Your task to perform on an android device: Open display settings Image 0: 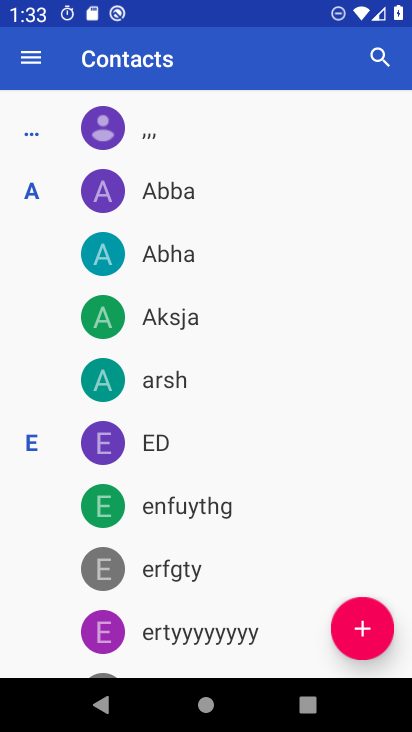
Step 0: press home button
Your task to perform on an android device: Open display settings Image 1: 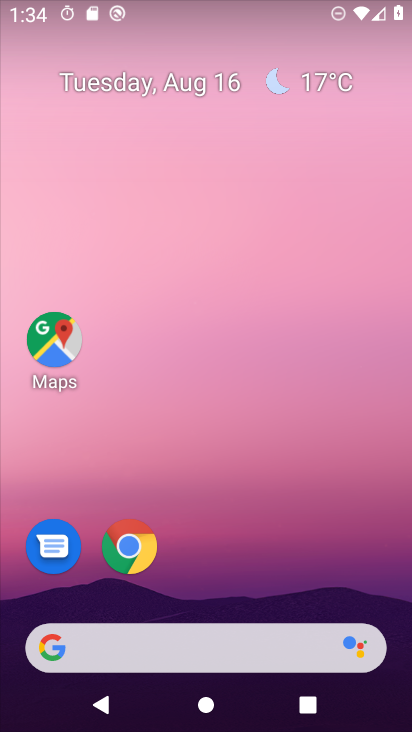
Step 1: drag from (194, 484) to (193, 34)
Your task to perform on an android device: Open display settings Image 2: 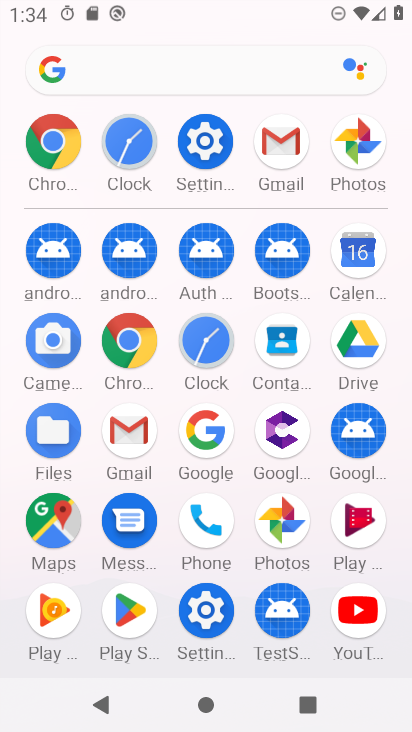
Step 2: click (213, 135)
Your task to perform on an android device: Open display settings Image 3: 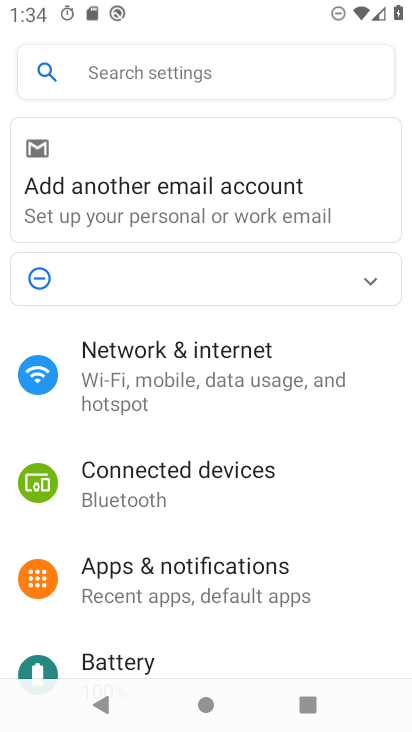
Step 3: drag from (156, 638) to (152, 300)
Your task to perform on an android device: Open display settings Image 4: 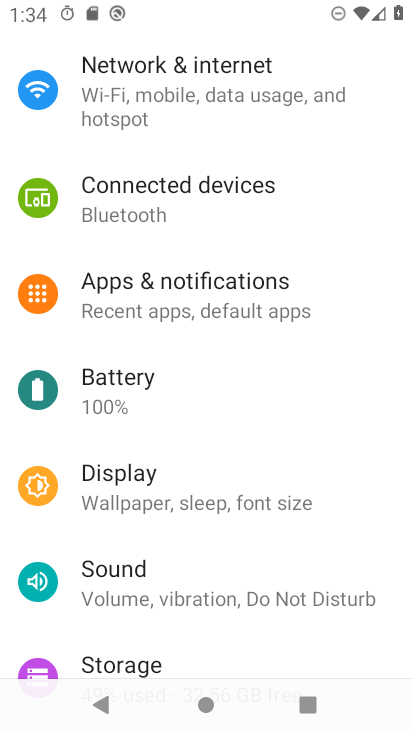
Step 4: drag from (140, 595) to (139, 425)
Your task to perform on an android device: Open display settings Image 5: 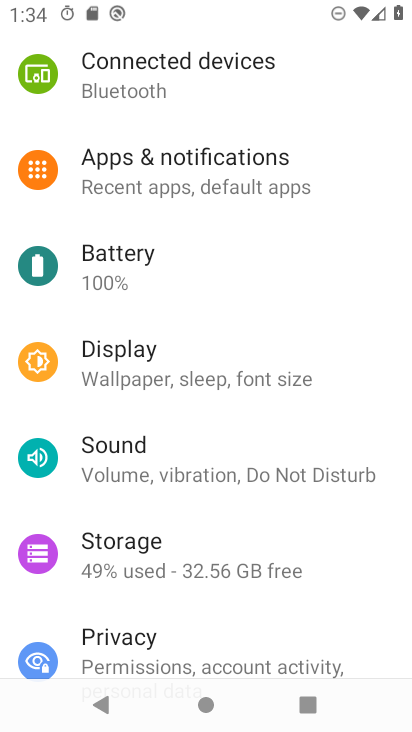
Step 5: click (125, 366)
Your task to perform on an android device: Open display settings Image 6: 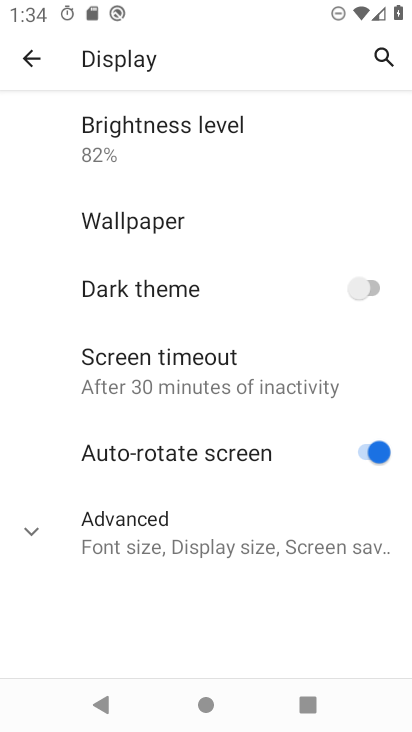
Step 6: task complete